Your task to perform on an android device: Open Google Chrome and click the shortcut for Amazon.com Image 0: 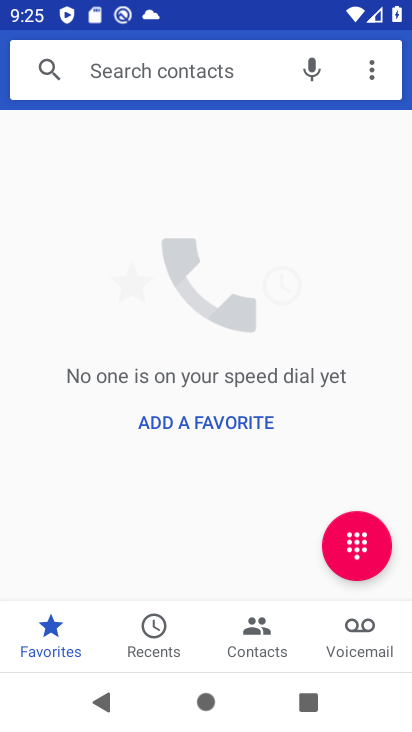
Step 0: press home button
Your task to perform on an android device: Open Google Chrome and click the shortcut for Amazon.com Image 1: 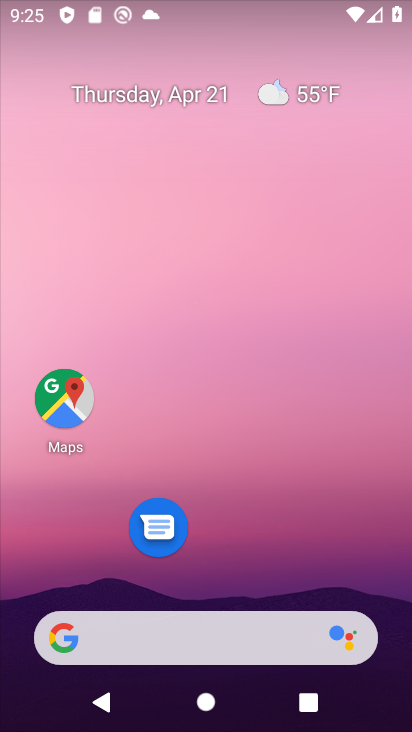
Step 1: drag from (210, 472) to (213, 58)
Your task to perform on an android device: Open Google Chrome and click the shortcut for Amazon.com Image 2: 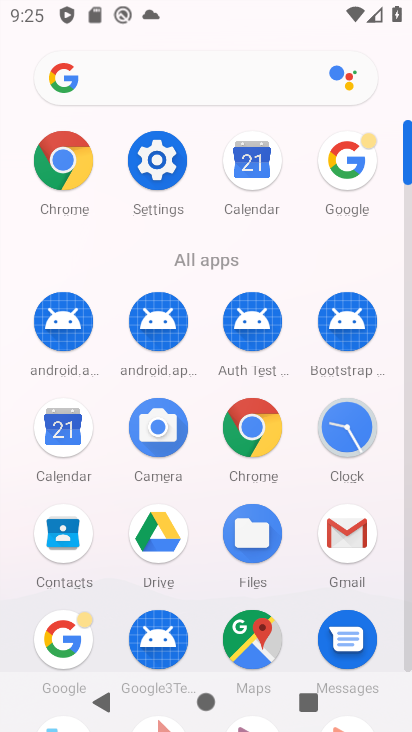
Step 2: click (61, 177)
Your task to perform on an android device: Open Google Chrome and click the shortcut for Amazon.com Image 3: 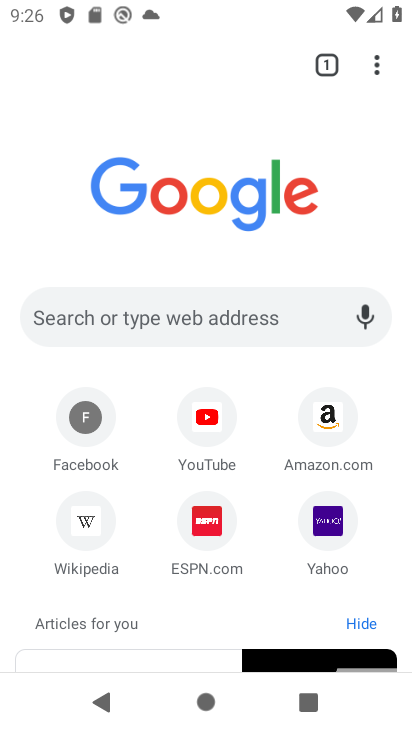
Step 3: click (320, 425)
Your task to perform on an android device: Open Google Chrome and click the shortcut for Amazon.com Image 4: 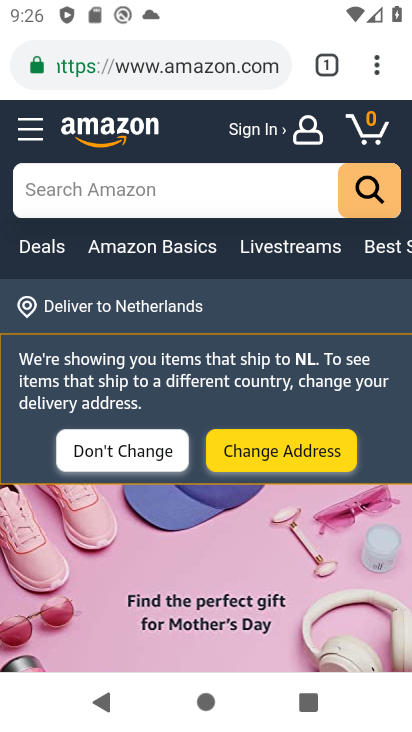
Step 4: task complete